Your task to perform on an android device: Search for Italian restaurants on Maps Image 0: 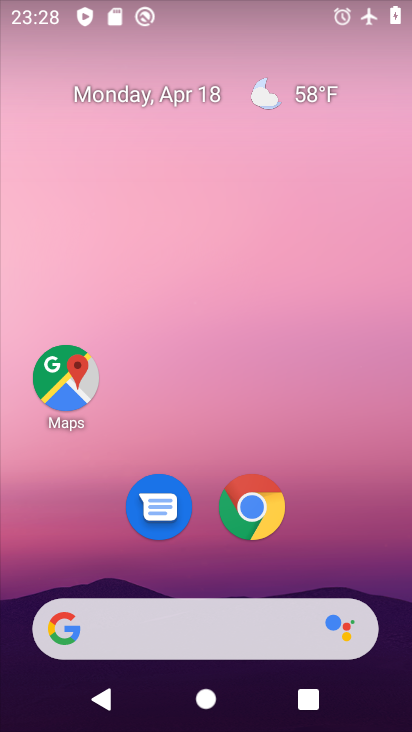
Step 0: click (44, 387)
Your task to perform on an android device: Search for Italian restaurants on Maps Image 1: 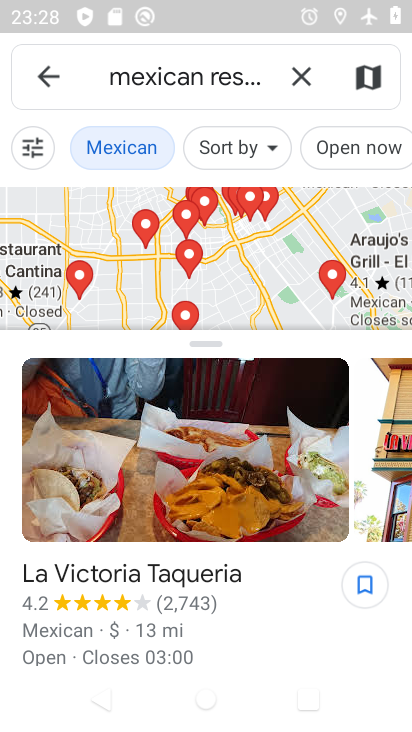
Step 1: click (307, 80)
Your task to perform on an android device: Search for Italian restaurants on Maps Image 2: 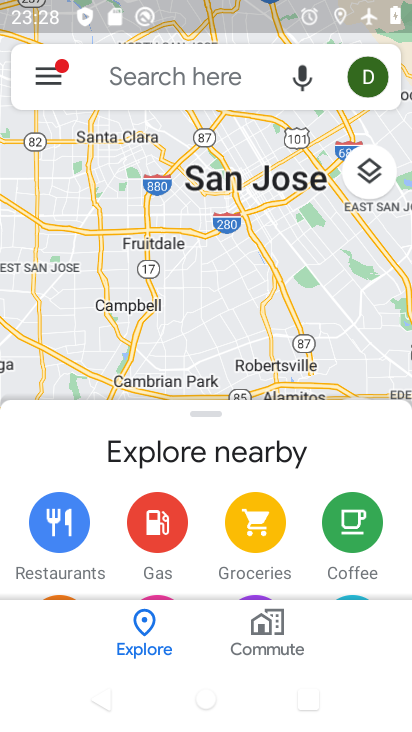
Step 2: click (175, 72)
Your task to perform on an android device: Search for Italian restaurants on Maps Image 3: 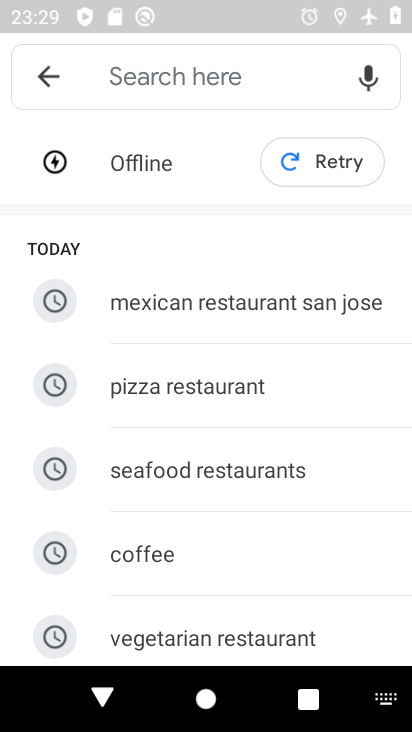
Step 3: type "italian restaurant"
Your task to perform on an android device: Search for Italian restaurants on Maps Image 4: 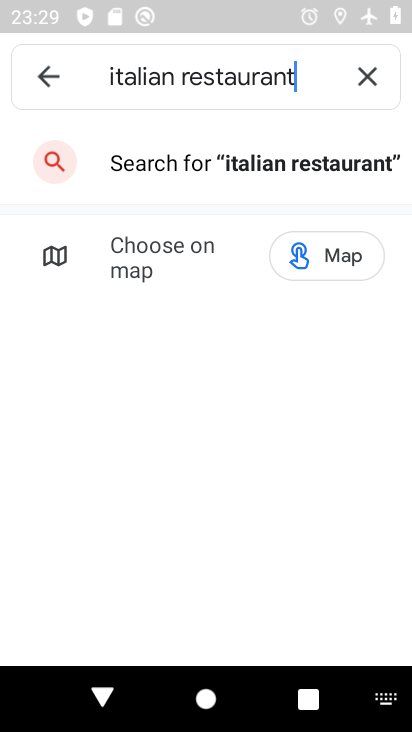
Step 4: click (212, 148)
Your task to perform on an android device: Search for Italian restaurants on Maps Image 5: 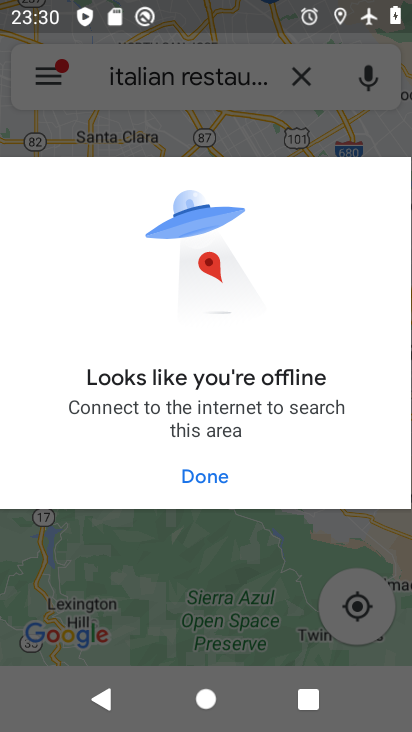
Step 5: drag from (199, 18) to (241, 570)
Your task to perform on an android device: Search for Italian restaurants on Maps Image 6: 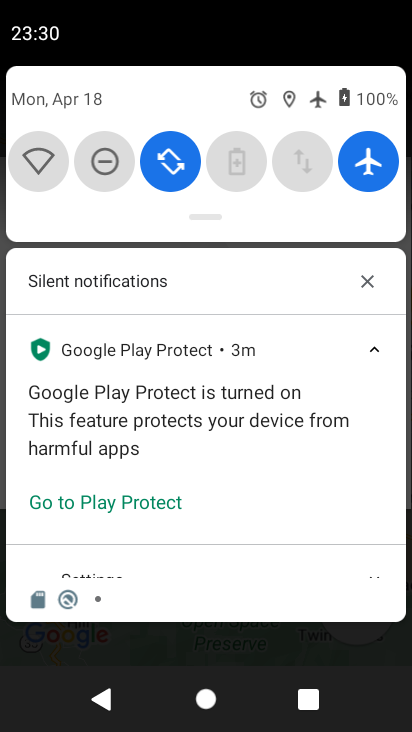
Step 6: drag from (177, 102) to (179, 632)
Your task to perform on an android device: Search for Italian restaurants on Maps Image 7: 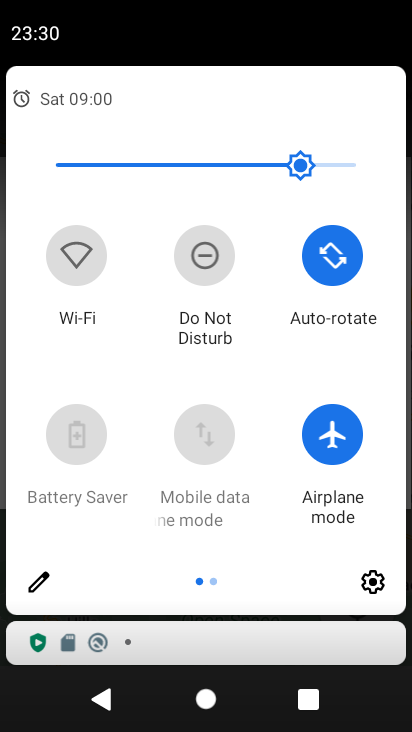
Step 7: click (376, 579)
Your task to perform on an android device: Search for Italian restaurants on Maps Image 8: 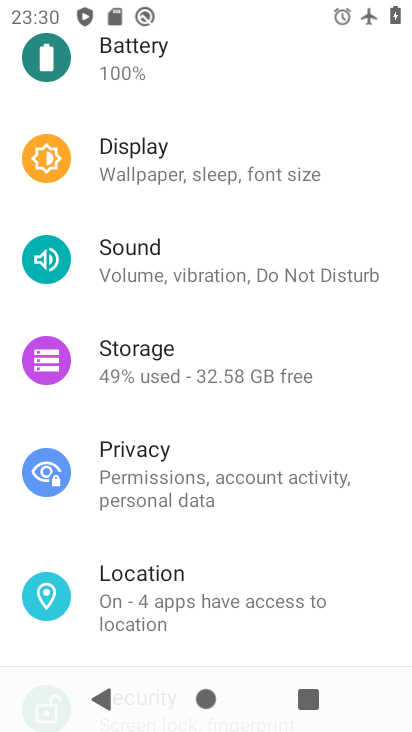
Step 8: press home button
Your task to perform on an android device: Search for Italian restaurants on Maps Image 9: 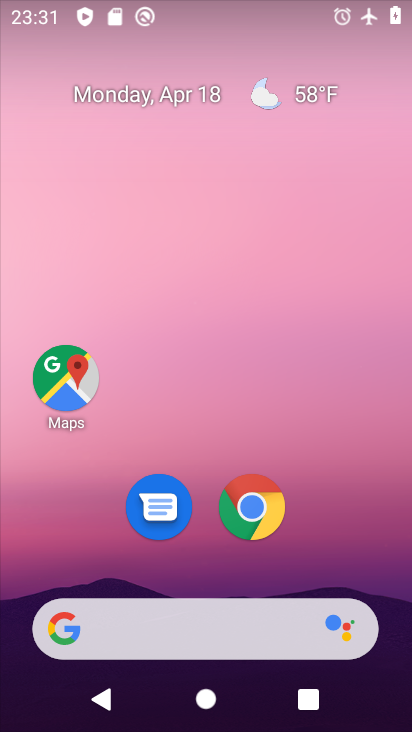
Step 9: click (61, 359)
Your task to perform on an android device: Search for Italian restaurants on Maps Image 10: 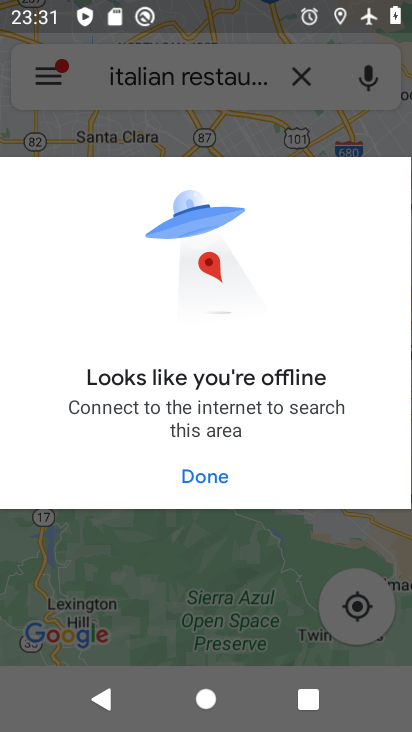
Step 10: drag from (240, 14) to (318, 434)
Your task to perform on an android device: Search for Italian restaurants on Maps Image 11: 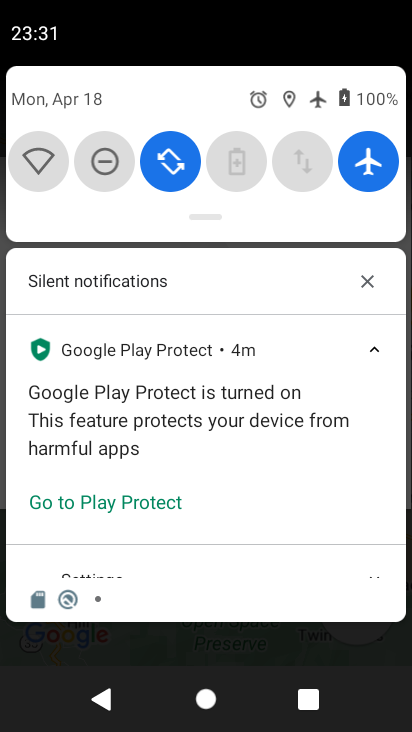
Step 11: click (375, 162)
Your task to perform on an android device: Search for Italian restaurants on Maps Image 12: 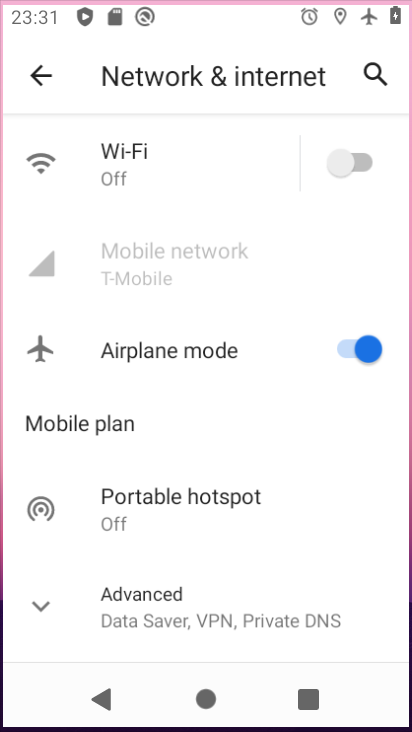
Step 12: task complete